Your task to perform on an android device: clear history in the chrome app Image 0: 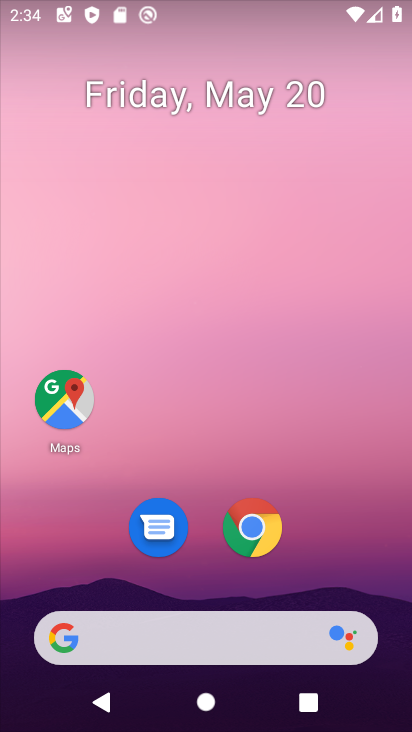
Step 0: click (258, 527)
Your task to perform on an android device: clear history in the chrome app Image 1: 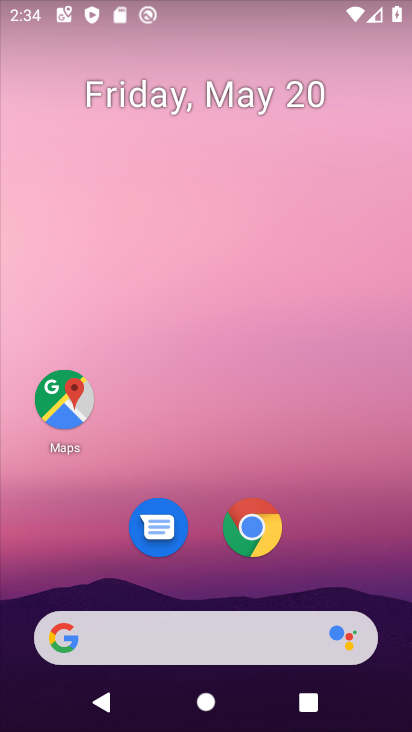
Step 1: click (258, 527)
Your task to perform on an android device: clear history in the chrome app Image 2: 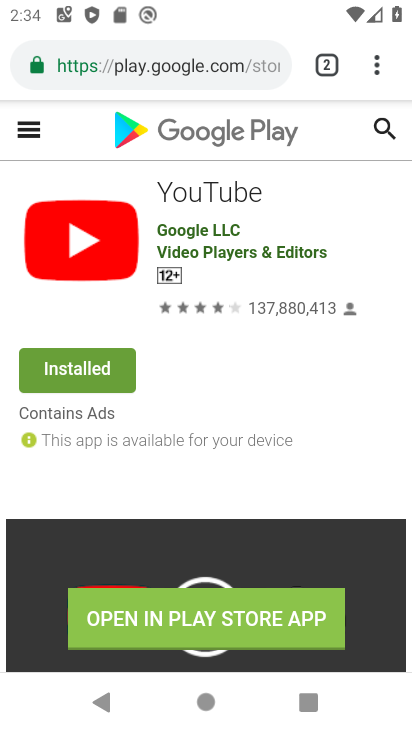
Step 2: click (377, 65)
Your task to perform on an android device: clear history in the chrome app Image 3: 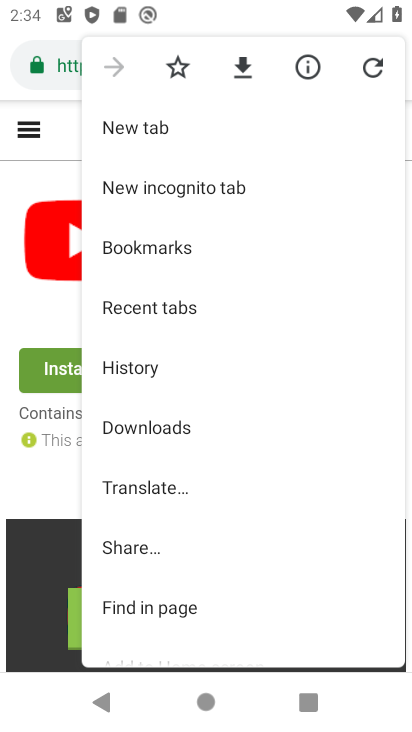
Step 3: click (139, 377)
Your task to perform on an android device: clear history in the chrome app Image 4: 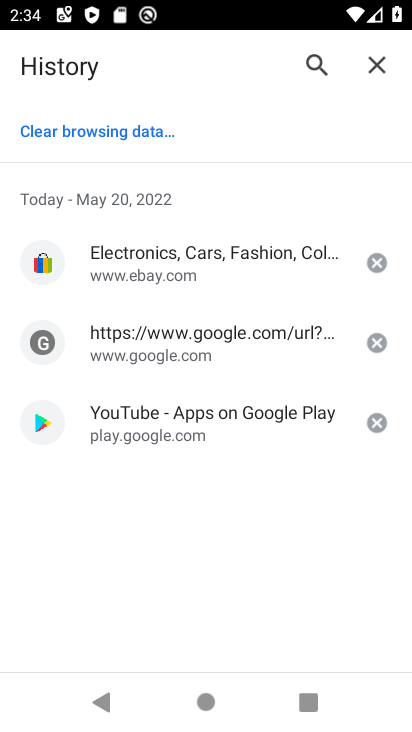
Step 4: click (135, 134)
Your task to perform on an android device: clear history in the chrome app Image 5: 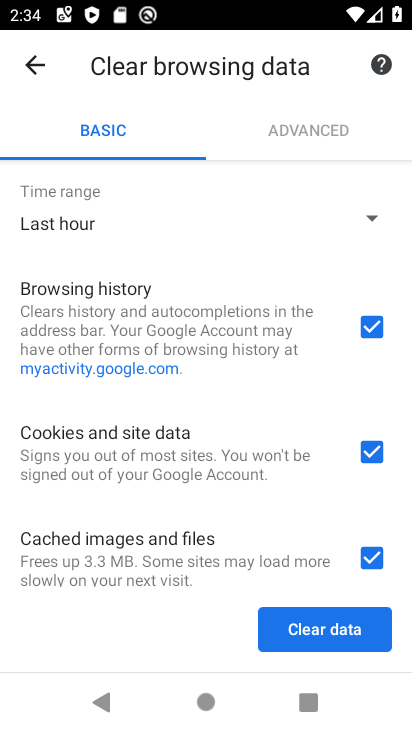
Step 5: click (364, 634)
Your task to perform on an android device: clear history in the chrome app Image 6: 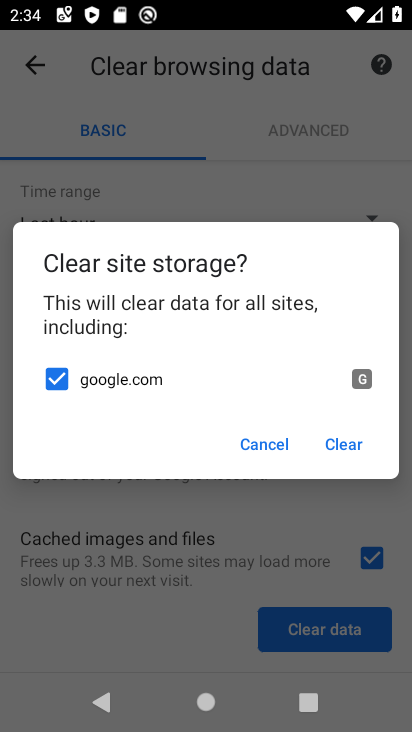
Step 6: click (337, 444)
Your task to perform on an android device: clear history in the chrome app Image 7: 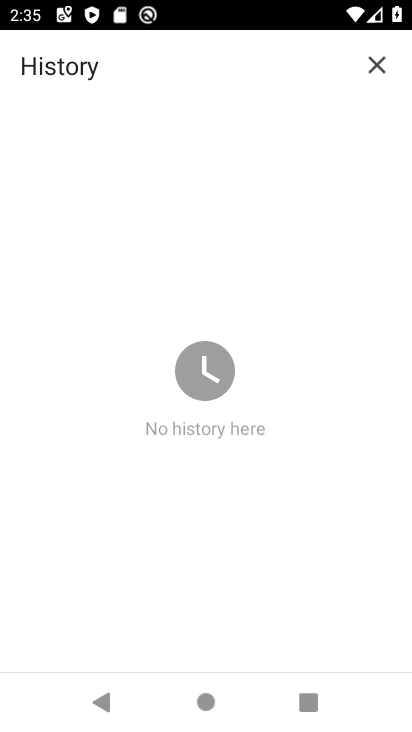
Step 7: task complete